Your task to perform on an android device: Go to network settings Image 0: 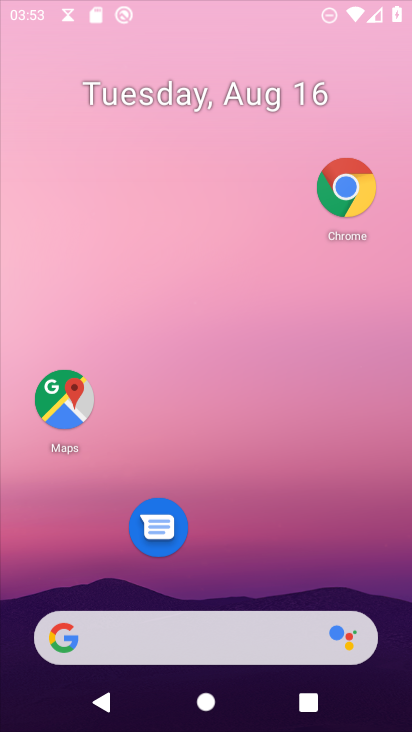
Step 0: press home button
Your task to perform on an android device: Go to network settings Image 1: 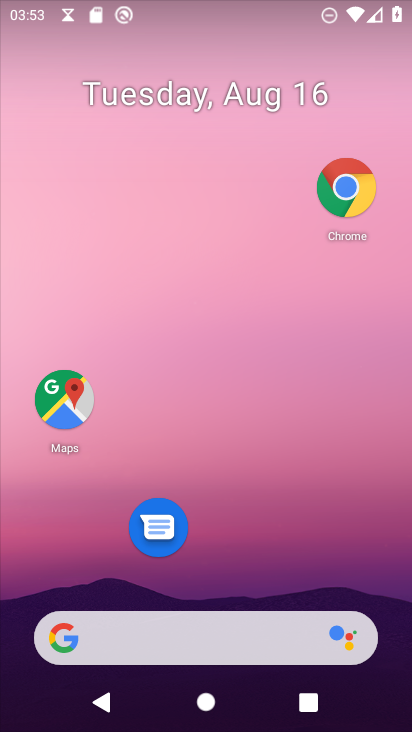
Step 1: drag from (217, 591) to (166, 0)
Your task to perform on an android device: Go to network settings Image 2: 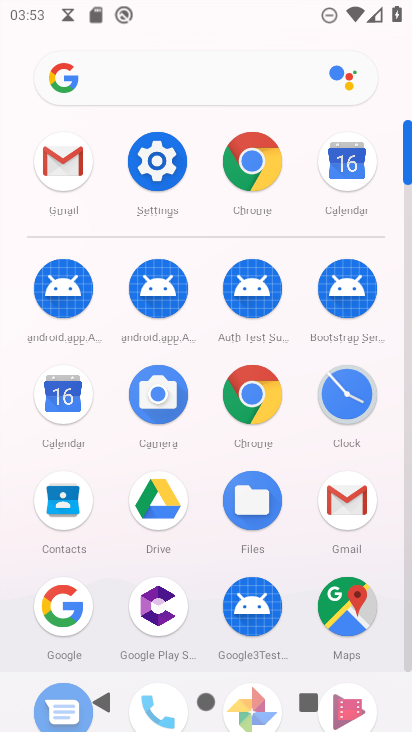
Step 2: click (153, 155)
Your task to perform on an android device: Go to network settings Image 3: 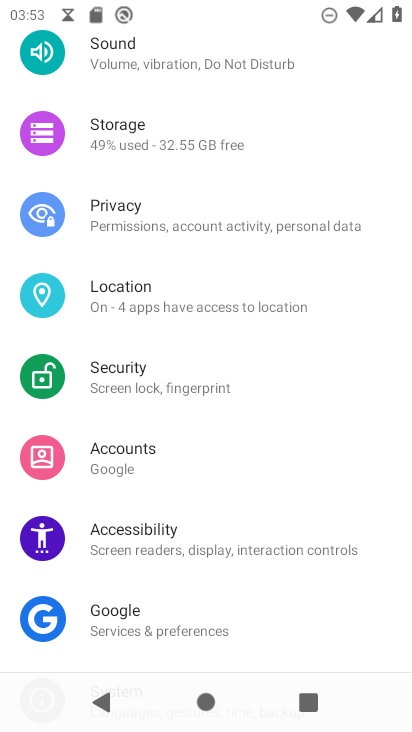
Step 3: drag from (162, 91) to (143, 450)
Your task to perform on an android device: Go to network settings Image 4: 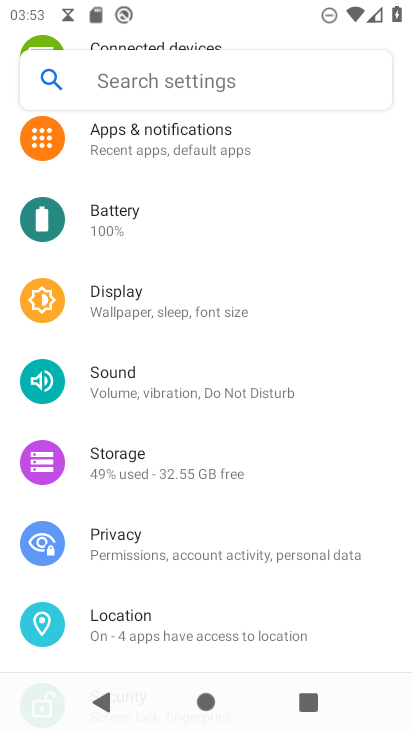
Step 4: drag from (153, 154) to (132, 559)
Your task to perform on an android device: Go to network settings Image 5: 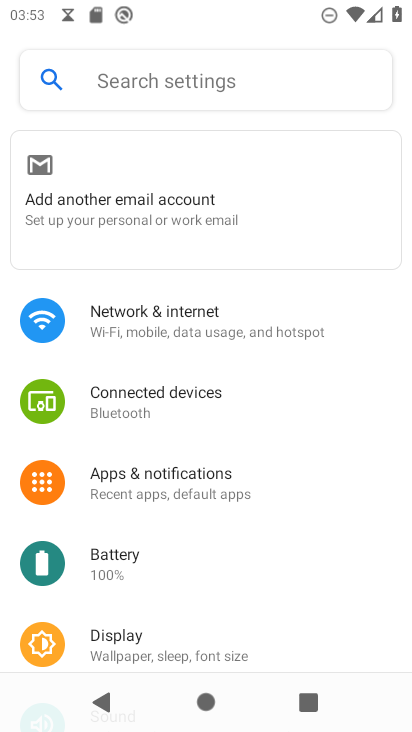
Step 5: click (166, 315)
Your task to perform on an android device: Go to network settings Image 6: 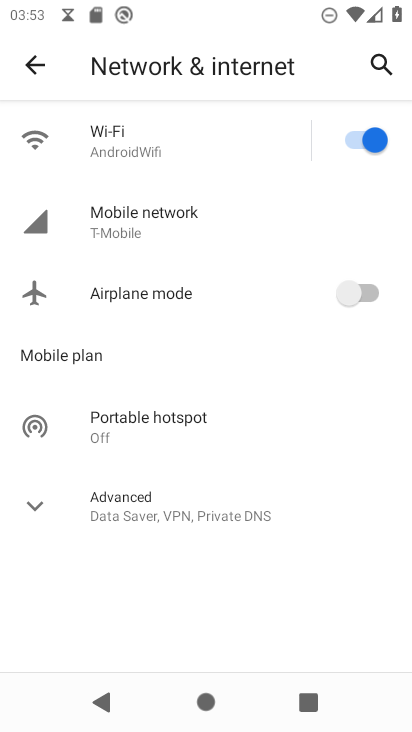
Step 6: click (35, 502)
Your task to perform on an android device: Go to network settings Image 7: 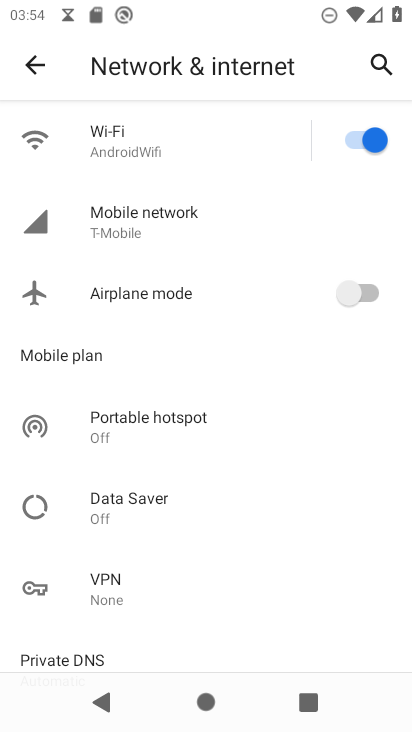
Step 7: task complete